Your task to perform on an android device: Play the last video I watched on Youtube Image 0: 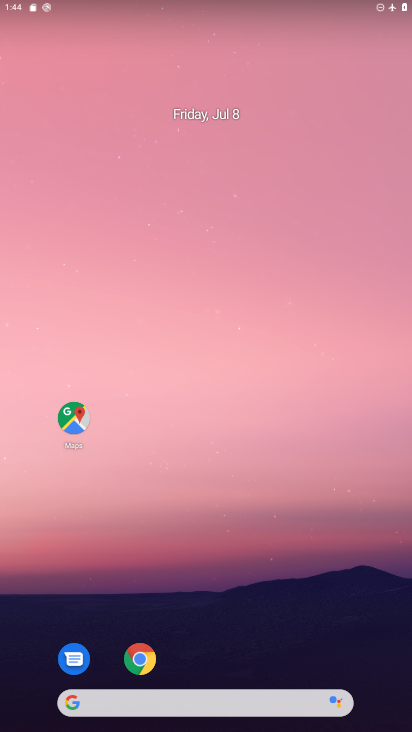
Step 0: drag from (235, 660) to (274, 61)
Your task to perform on an android device: Play the last video I watched on Youtube Image 1: 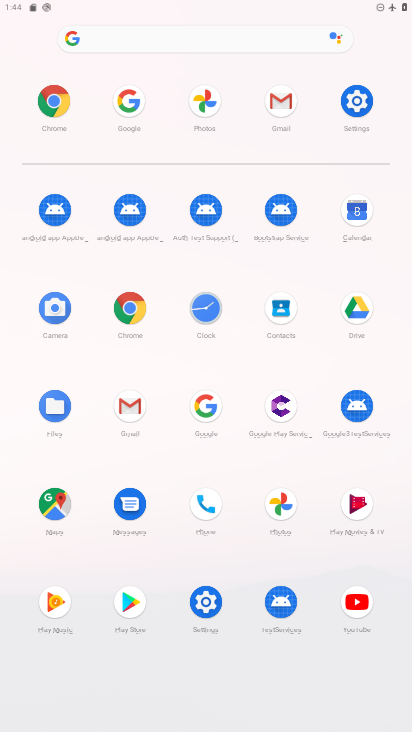
Step 1: click (357, 601)
Your task to perform on an android device: Play the last video I watched on Youtube Image 2: 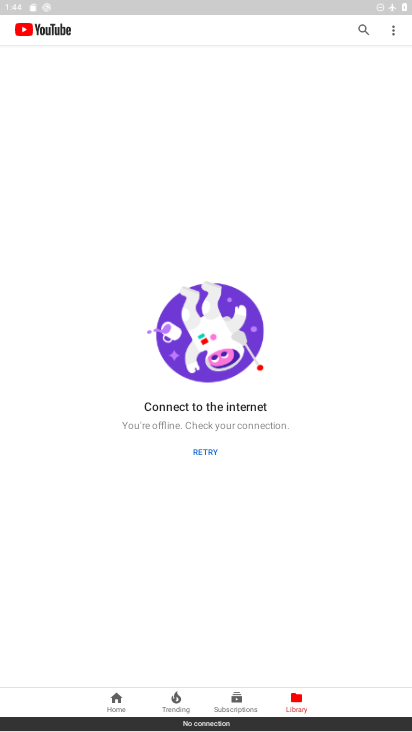
Step 2: click (205, 453)
Your task to perform on an android device: Play the last video I watched on Youtube Image 3: 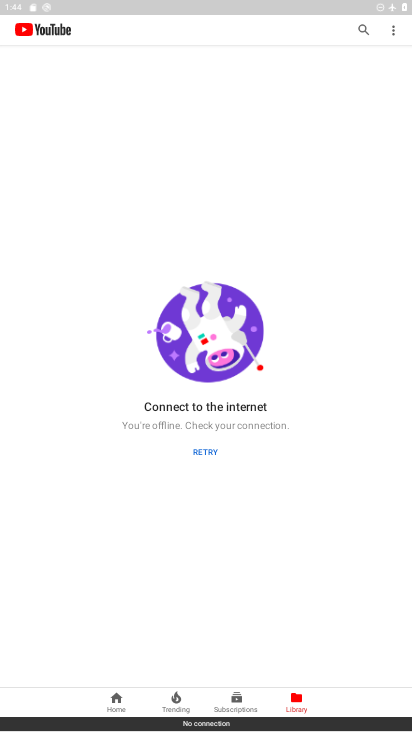
Step 3: task complete